Your task to perform on an android device: Open Reddit.com Image 0: 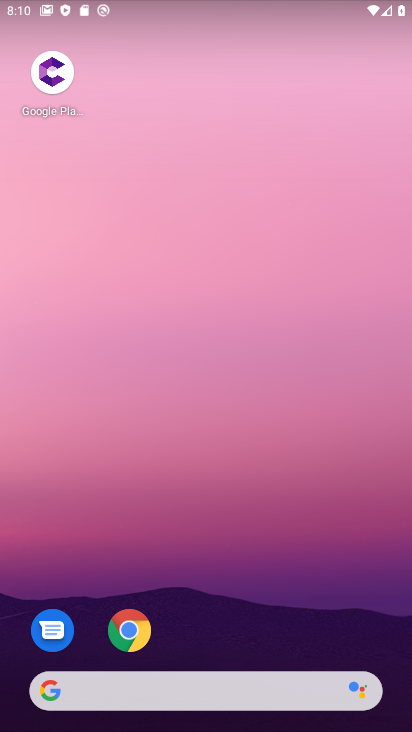
Step 0: click (131, 629)
Your task to perform on an android device: Open Reddit.com Image 1: 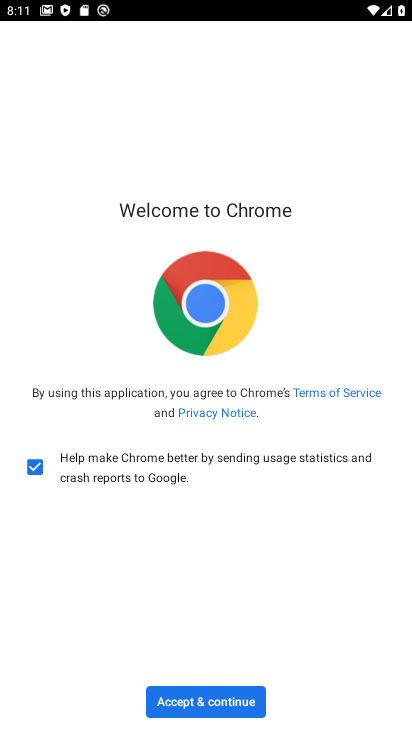
Step 1: click (199, 704)
Your task to perform on an android device: Open Reddit.com Image 2: 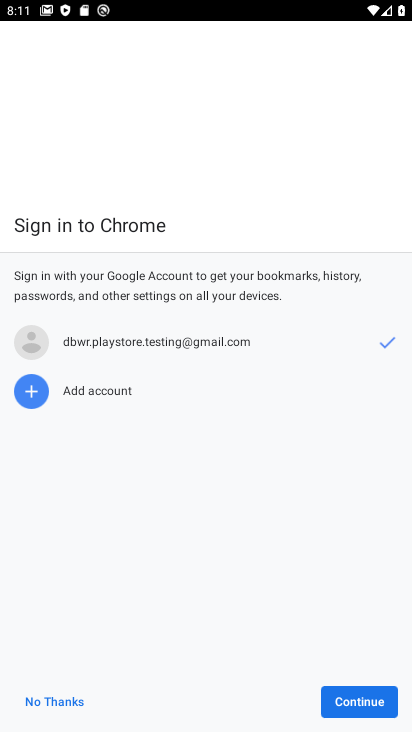
Step 2: click (350, 695)
Your task to perform on an android device: Open Reddit.com Image 3: 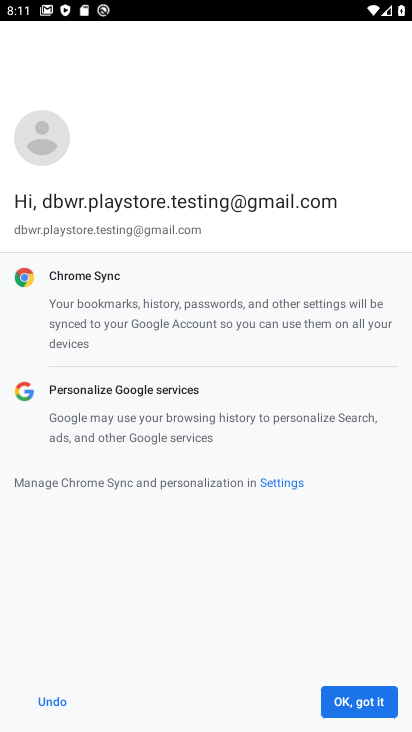
Step 3: click (370, 708)
Your task to perform on an android device: Open Reddit.com Image 4: 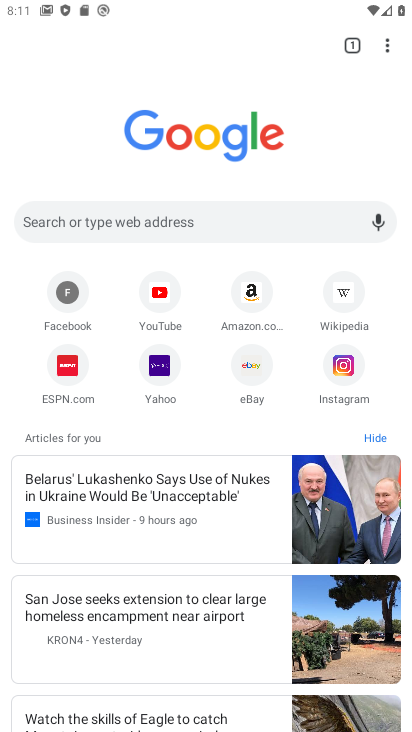
Step 4: click (89, 215)
Your task to perform on an android device: Open Reddit.com Image 5: 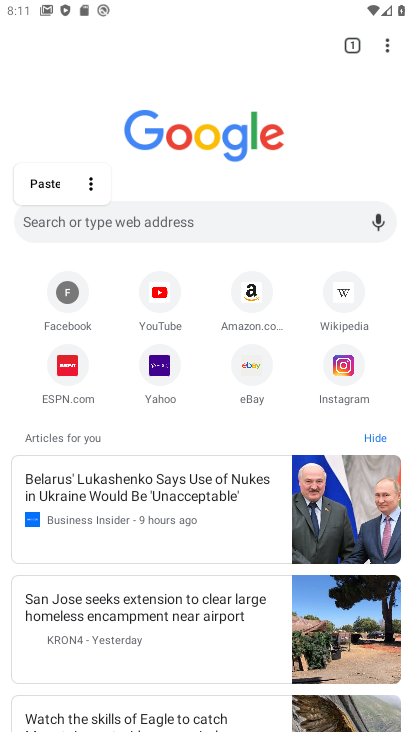
Step 5: type "redit.com"
Your task to perform on an android device: Open Reddit.com Image 6: 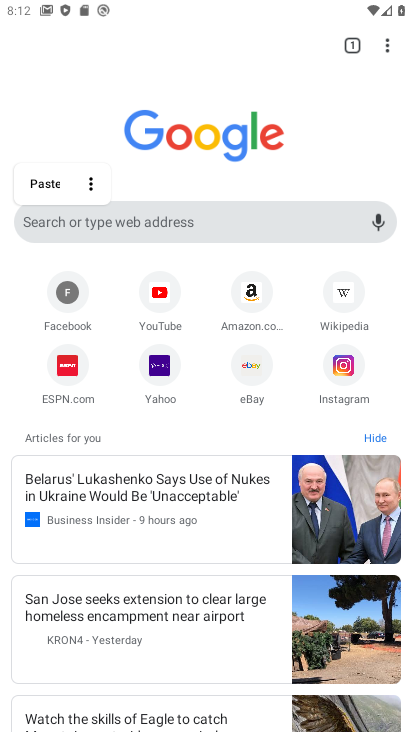
Step 6: click (163, 222)
Your task to perform on an android device: Open Reddit.com Image 7: 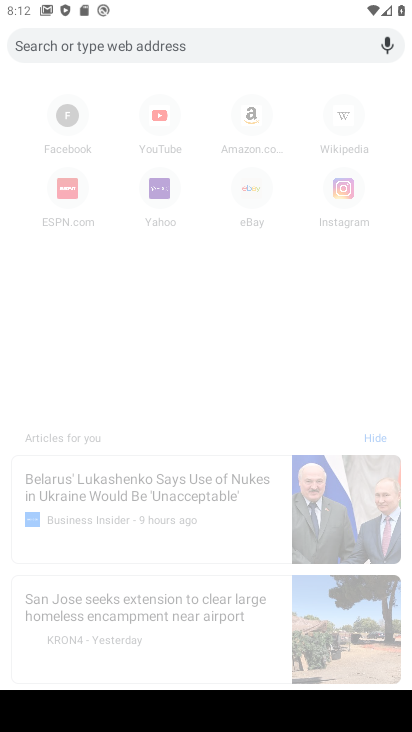
Step 7: click (88, 51)
Your task to perform on an android device: Open Reddit.com Image 8: 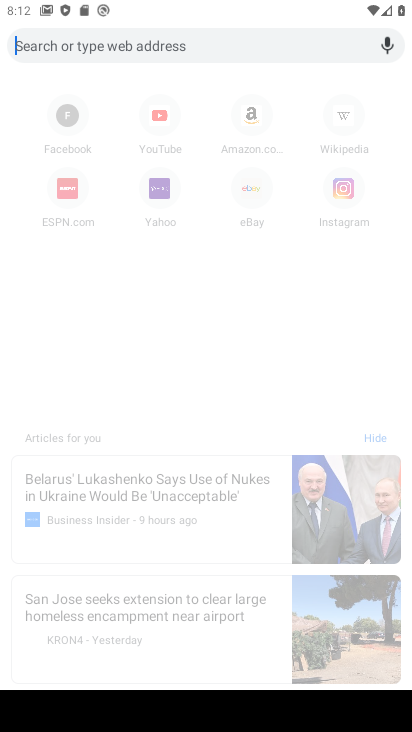
Step 8: type "reddit"
Your task to perform on an android device: Open Reddit.com Image 9: 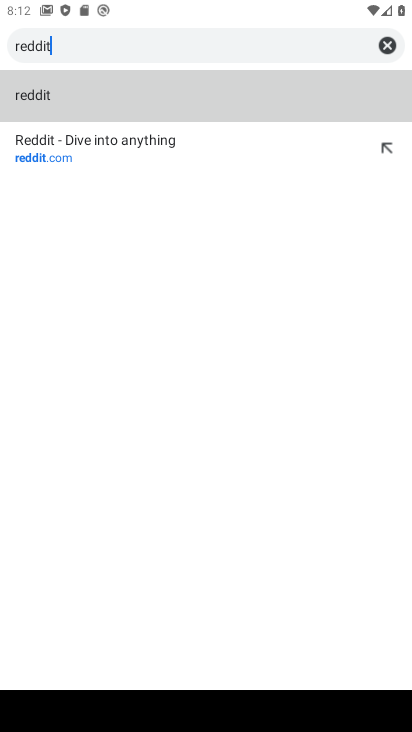
Step 9: click (68, 145)
Your task to perform on an android device: Open Reddit.com Image 10: 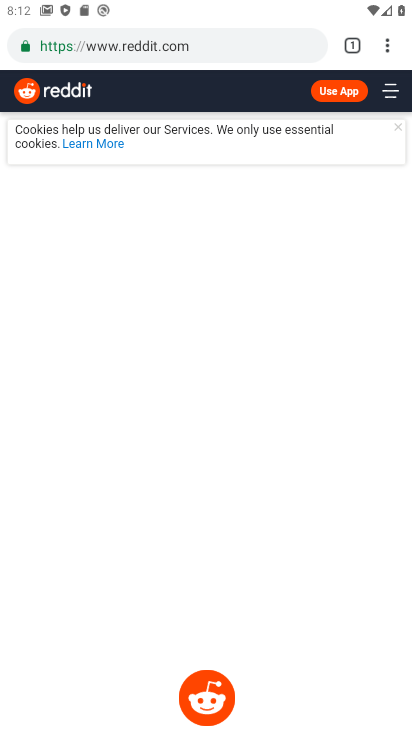
Step 10: task complete